Your task to perform on an android device: create a new album in the google photos Image 0: 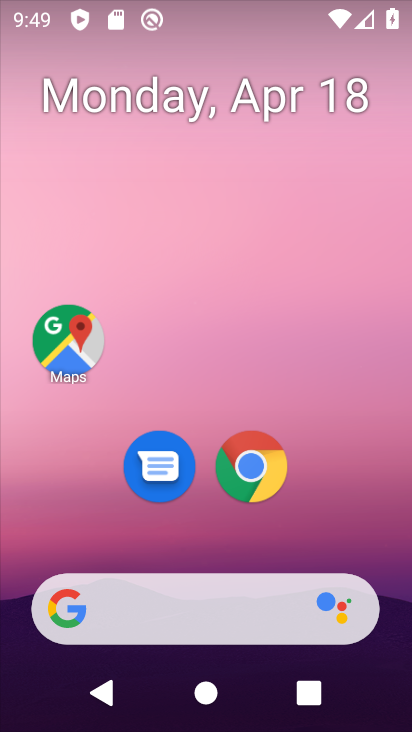
Step 0: drag from (201, 624) to (249, 172)
Your task to perform on an android device: create a new album in the google photos Image 1: 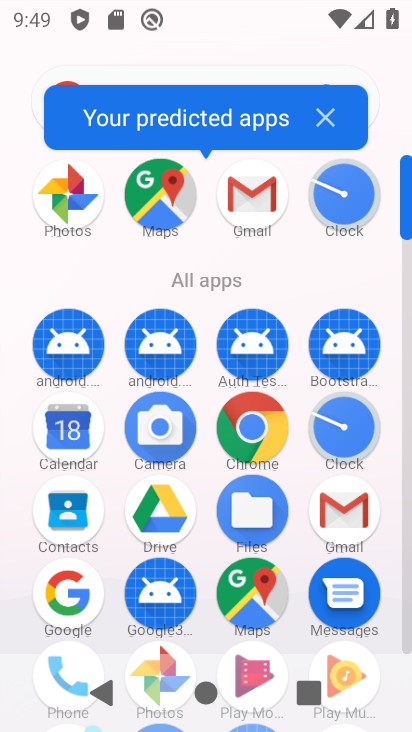
Step 1: drag from (290, 440) to (344, 122)
Your task to perform on an android device: create a new album in the google photos Image 2: 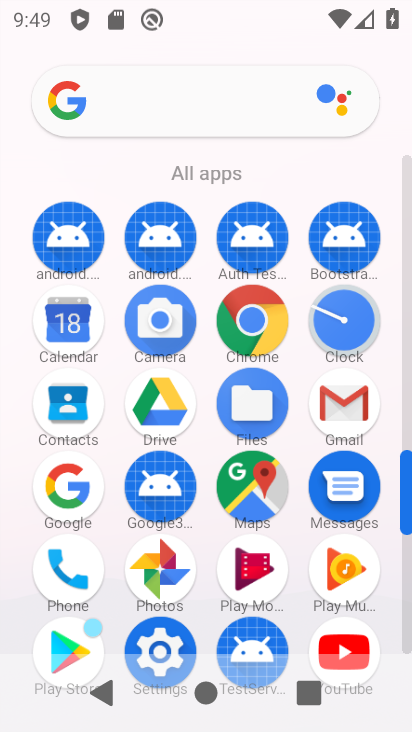
Step 2: click (171, 584)
Your task to perform on an android device: create a new album in the google photos Image 3: 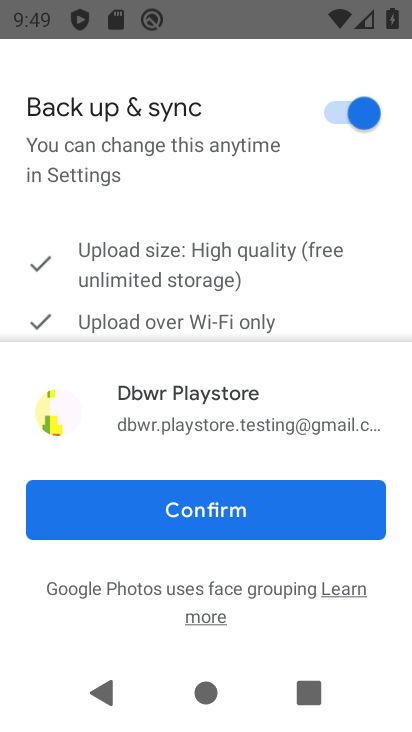
Step 3: click (131, 508)
Your task to perform on an android device: create a new album in the google photos Image 4: 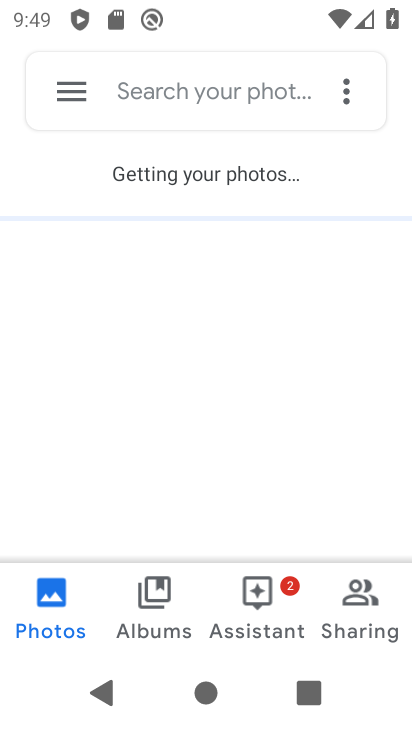
Step 4: click (164, 606)
Your task to perform on an android device: create a new album in the google photos Image 5: 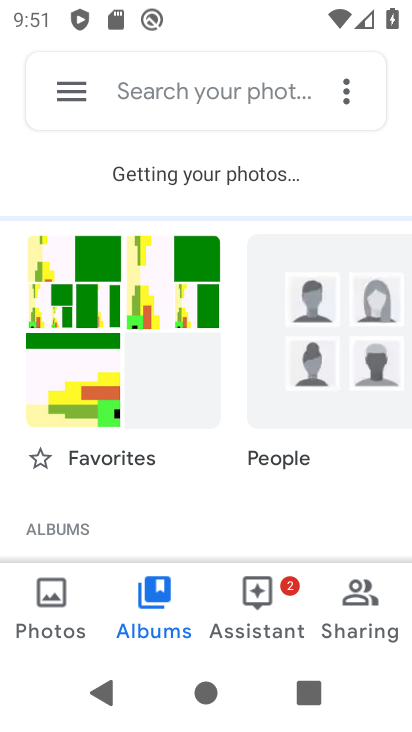
Step 5: drag from (160, 492) to (224, 170)
Your task to perform on an android device: create a new album in the google photos Image 6: 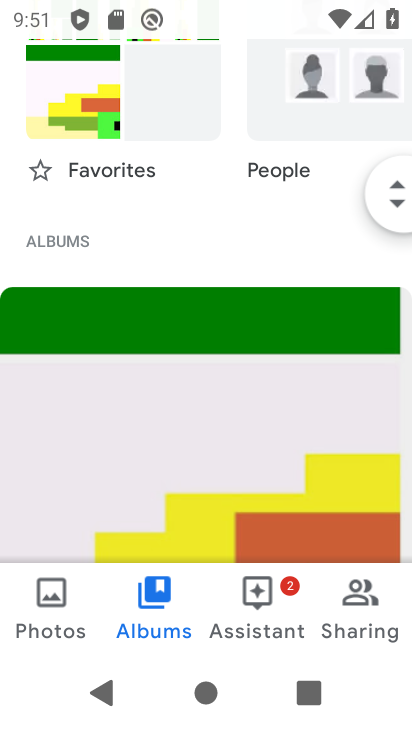
Step 6: drag from (221, 413) to (168, 125)
Your task to perform on an android device: create a new album in the google photos Image 7: 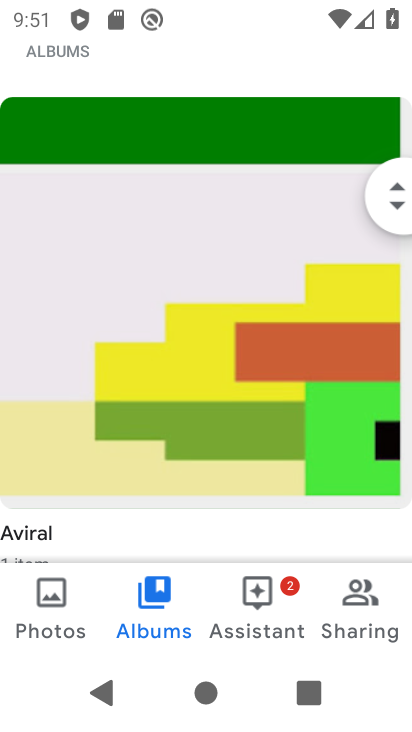
Step 7: drag from (238, 271) to (234, 590)
Your task to perform on an android device: create a new album in the google photos Image 8: 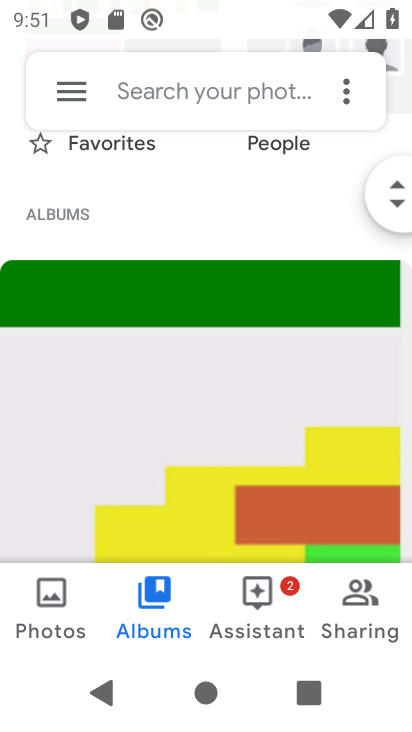
Step 8: drag from (217, 411) to (199, 606)
Your task to perform on an android device: create a new album in the google photos Image 9: 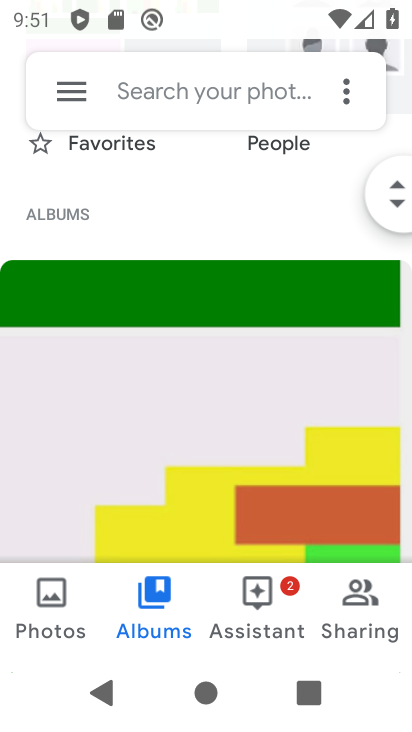
Step 9: click (349, 94)
Your task to perform on an android device: create a new album in the google photos Image 10: 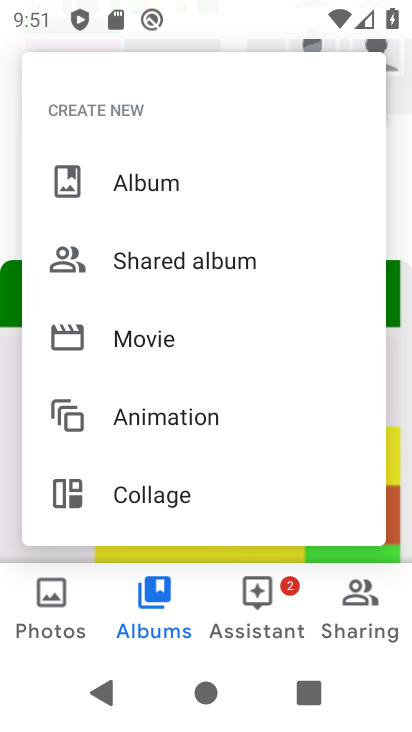
Step 10: click (195, 183)
Your task to perform on an android device: create a new album in the google photos Image 11: 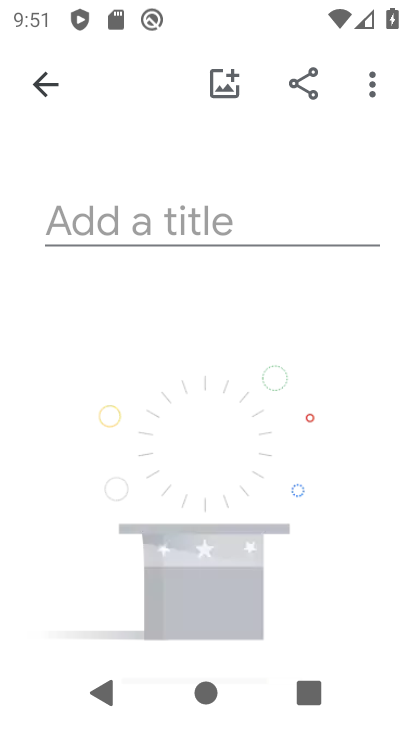
Step 11: click (206, 236)
Your task to perform on an android device: create a new album in the google photos Image 12: 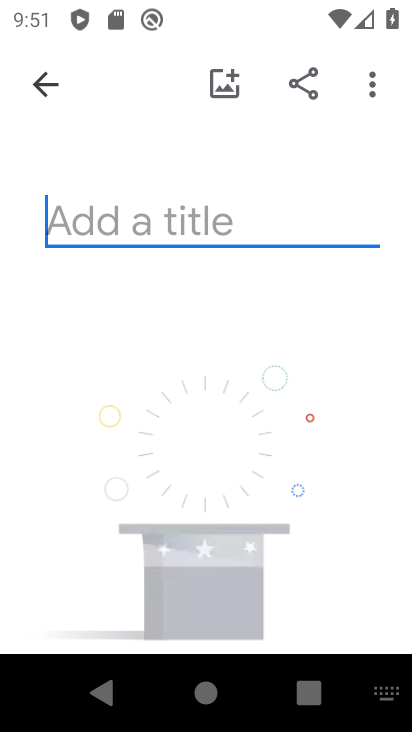
Step 12: type "dsgsdgvd"
Your task to perform on an android device: create a new album in the google photos Image 13: 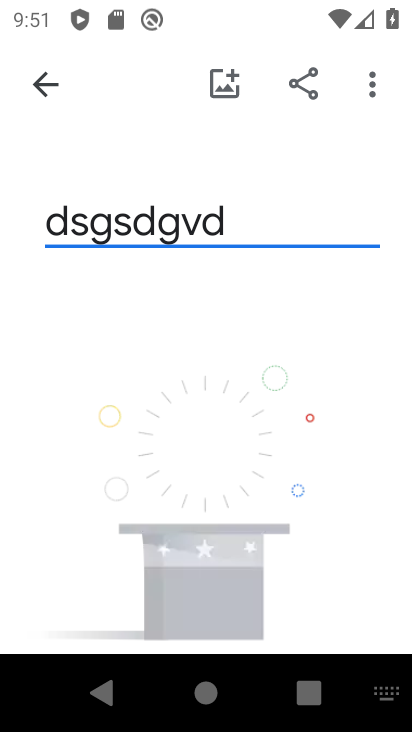
Step 13: drag from (242, 461) to (291, 74)
Your task to perform on an android device: create a new album in the google photos Image 14: 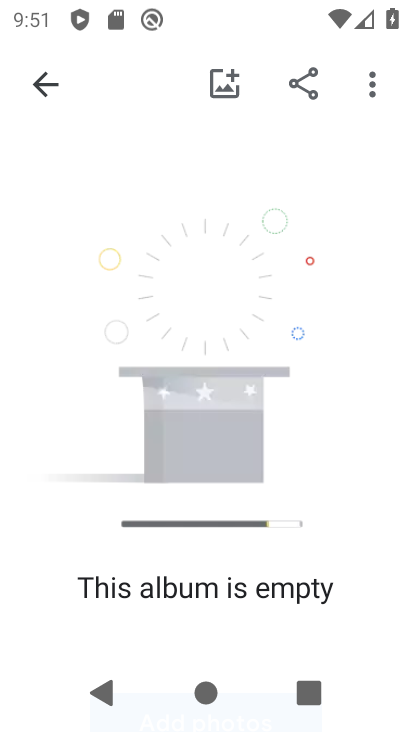
Step 14: click (232, 89)
Your task to perform on an android device: create a new album in the google photos Image 15: 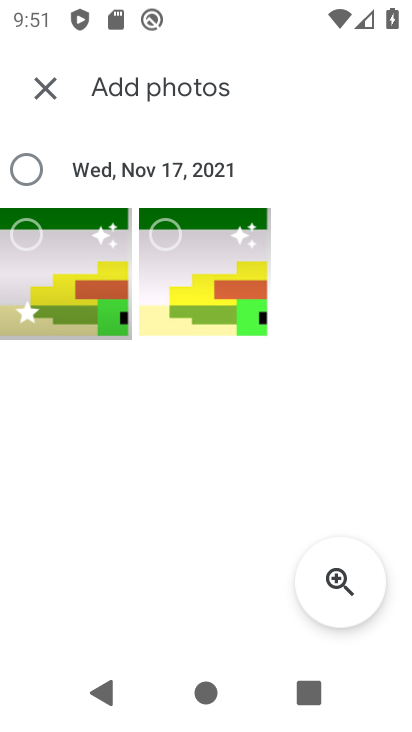
Step 15: click (89, 260)
Your task to perform on an android device: create a new album in the google photos Image 16: 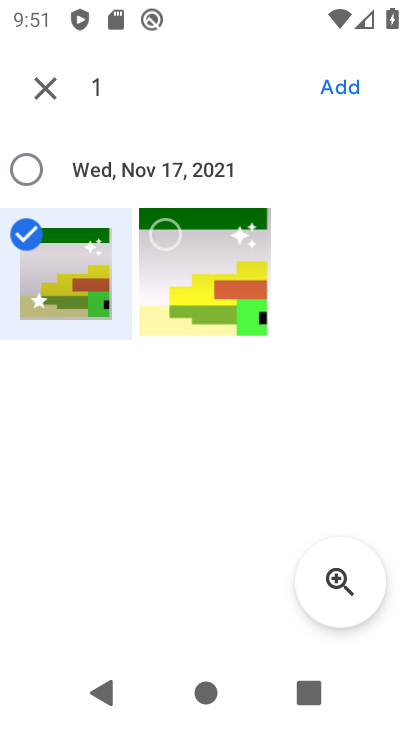
Step 16: click (164, 242)
Your task to perform on an android device: create a new album in the google photos Image 17: 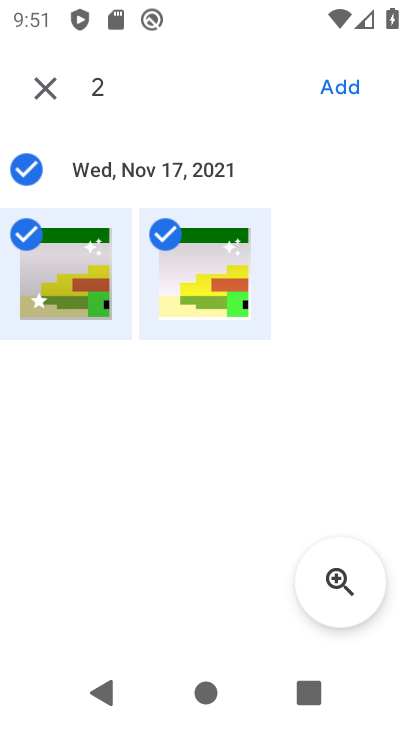
Step 17: click (349, 94)
Your task to perform on an android device: create a new album in the google photos Image 18: 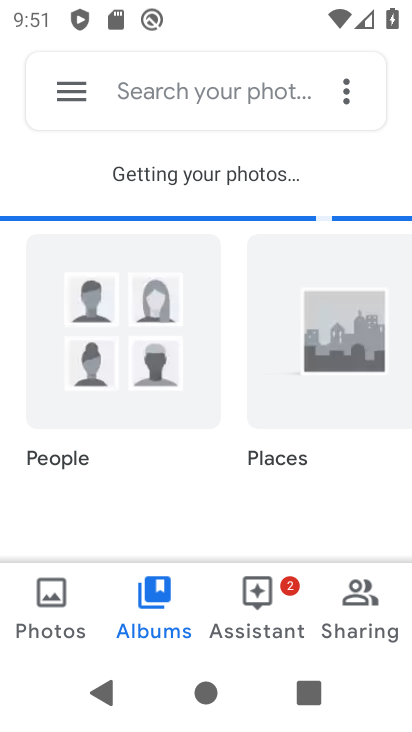
Step 18: task complete